Your task to perform on an android device: toggle wifi Image 0: 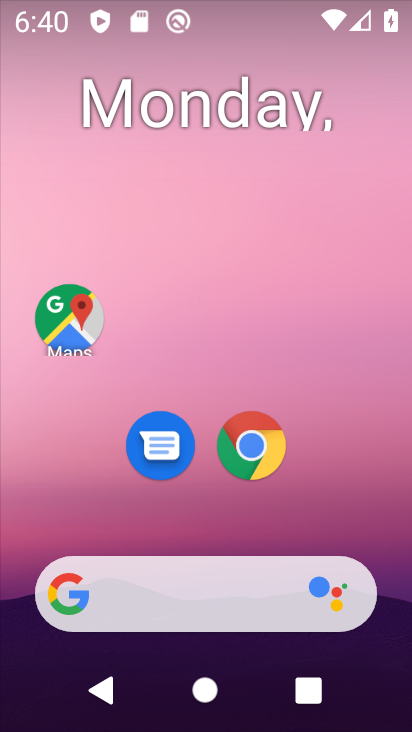
Step 0: drag from (333, 14) to (369, 388)
Your task to perform on an android device: toggle wifi Image 1: 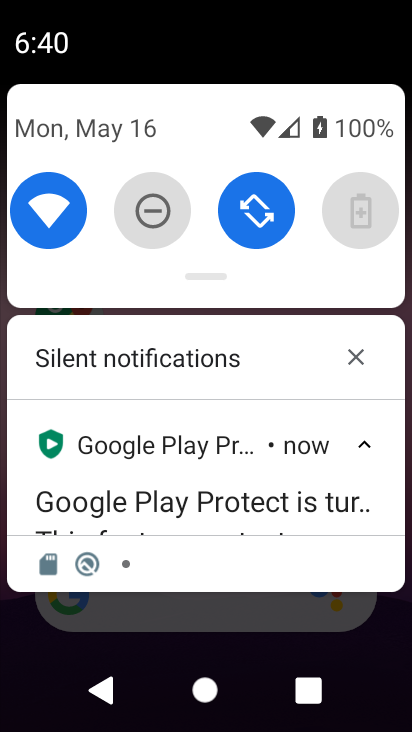
Step 1: click (47, 199)
Your task to perform on an android device: toggle wifi Image 2: 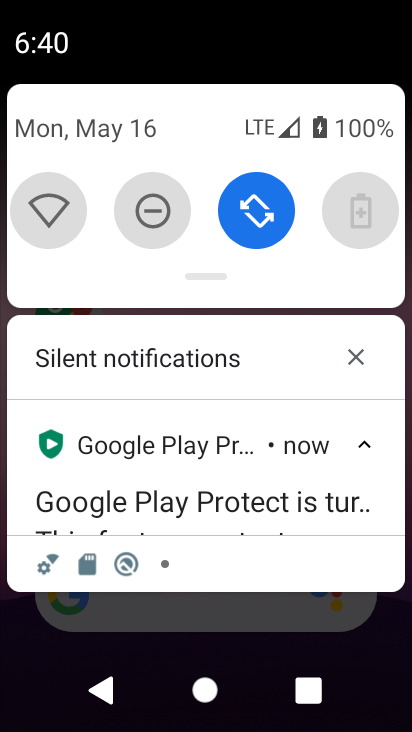
Step 2: task complete